Your task to perform on an android device: remove spam from my inbox in the gmail app Image 0: 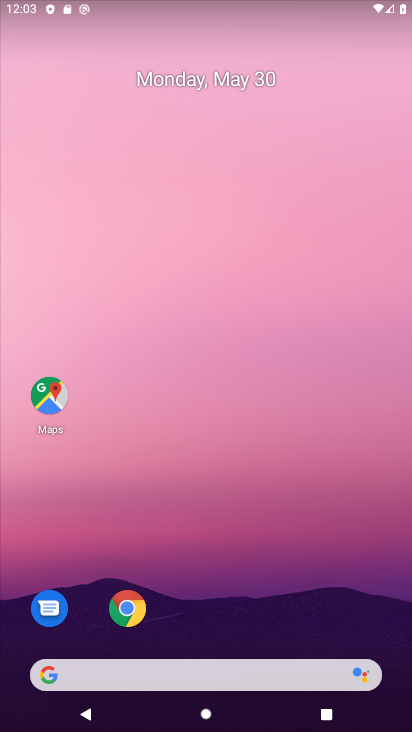
Step 0: drag from (231, 606) to (230, 36)
Your task to perform on an android device: remove spam from my inbox in the gmail app Image 1: 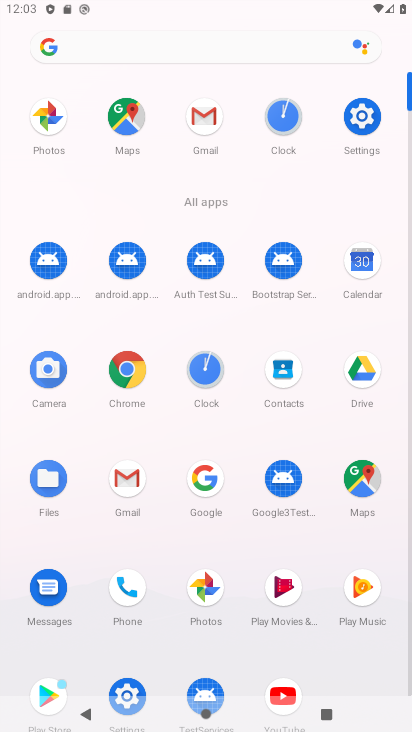
Step 1: click (137, 475)
Your task to perform on an android device: remove spam from my inbox in the gmail app Image 2: 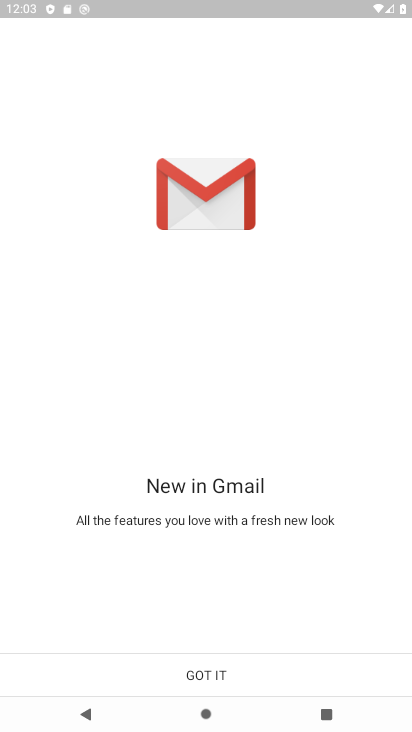
Step 2: click (205, 669)
Your task to perform on an android device: remove spam from my inbox in the gmail app Image 3: 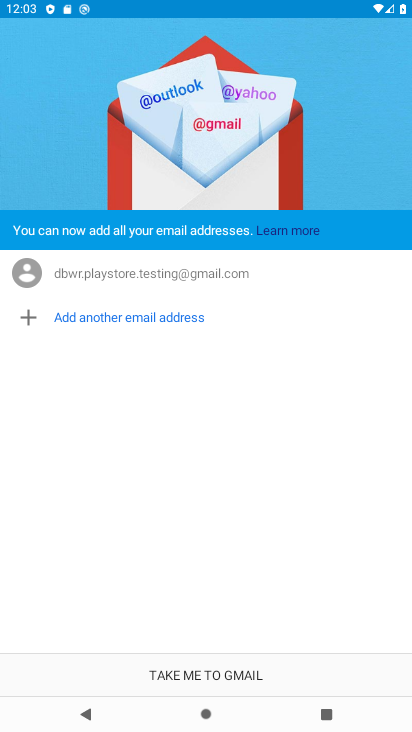
Step 3: click (205, 669)
Your task to perform on an android device: remove spam from my inbox in the gmail app Image 4: 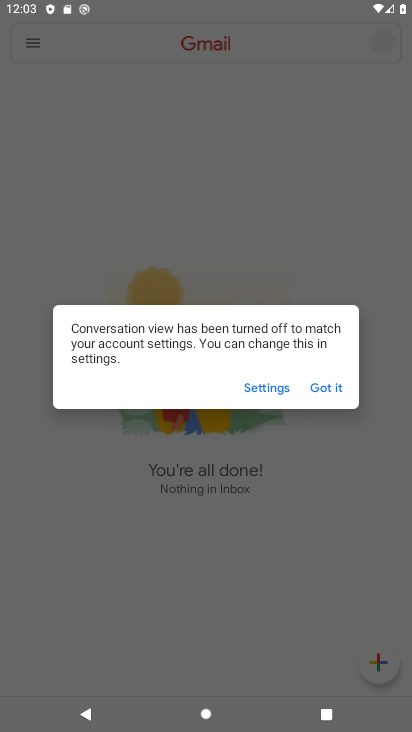
Step 4: click (333, 393)
Your task to perform on an android device: remove spam from my inbox in the gmail app Image 5: 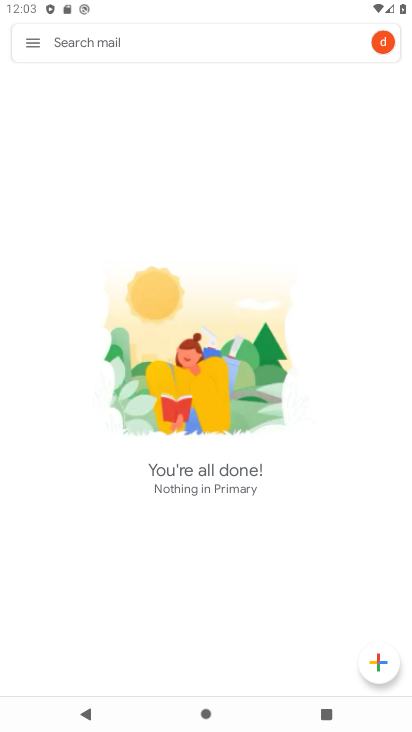
Step 5: click (30, 47)
Your task to perform on an android device: remove spam from my inbox in the gmail app Image 6: 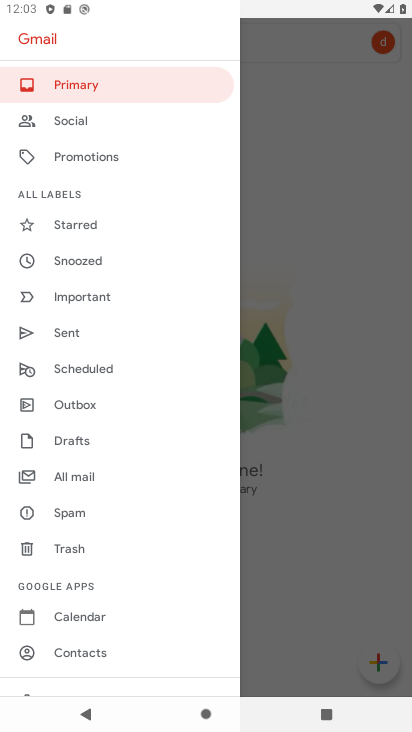
Step 6: click (75, 509)
Your task to perform on an android device: remove spam from my inbox in the gmail app Image 7: 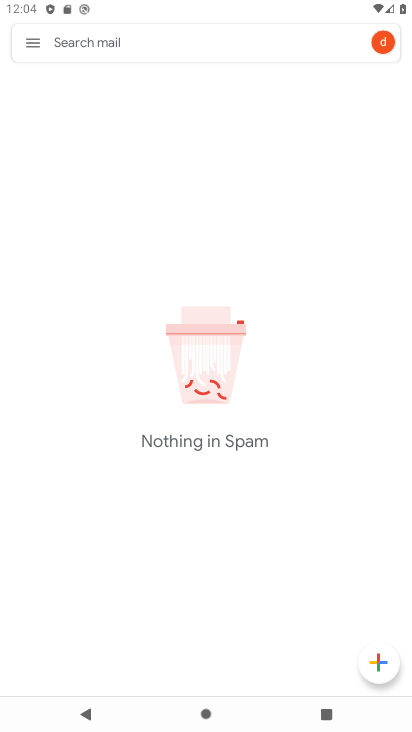
Step 7: task complete